Your task to perform on an android device: delete a single message in the gmail app Image 0: 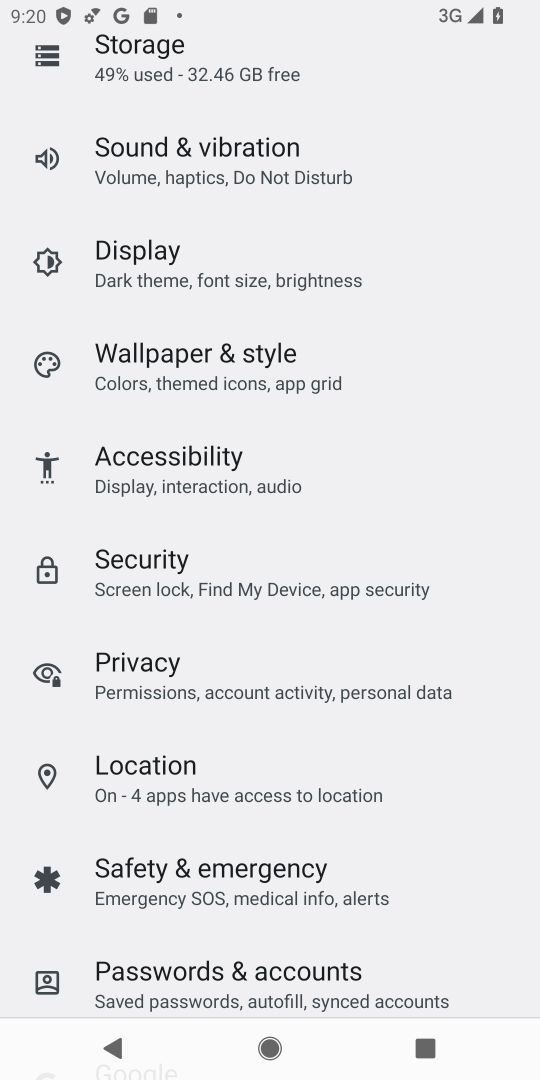
Step 0: press home button
Your task to perform on an android device: delete a single message in the gmail app Image 1: 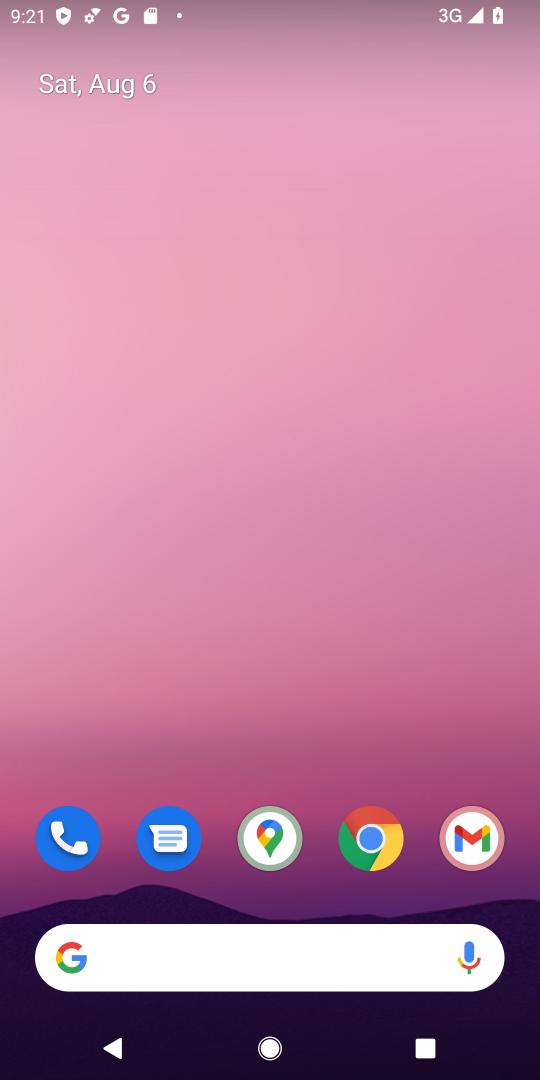
Step 1: drag from (426, 767) to (288, 98)
Your task to perform on an android device: delete a single message in the gmail app Image 2: 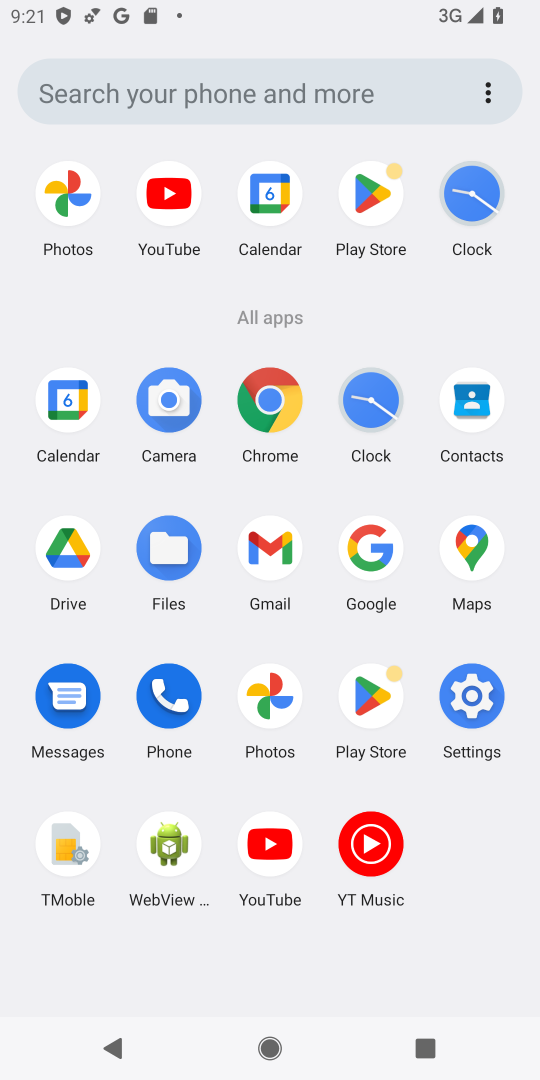
Step 2: click (288, 98)
Your task to perform on an android device: delete a single message in the gmail app Image 3: 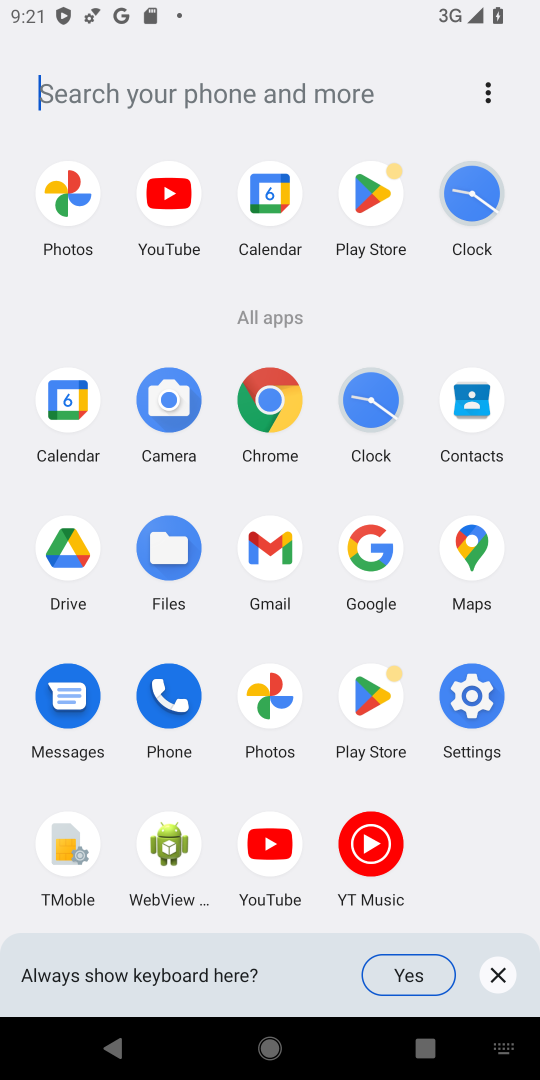
Step 3: click (267, 553)
Your task to perform on an android device: delete a single message in the gmail app Image 4: 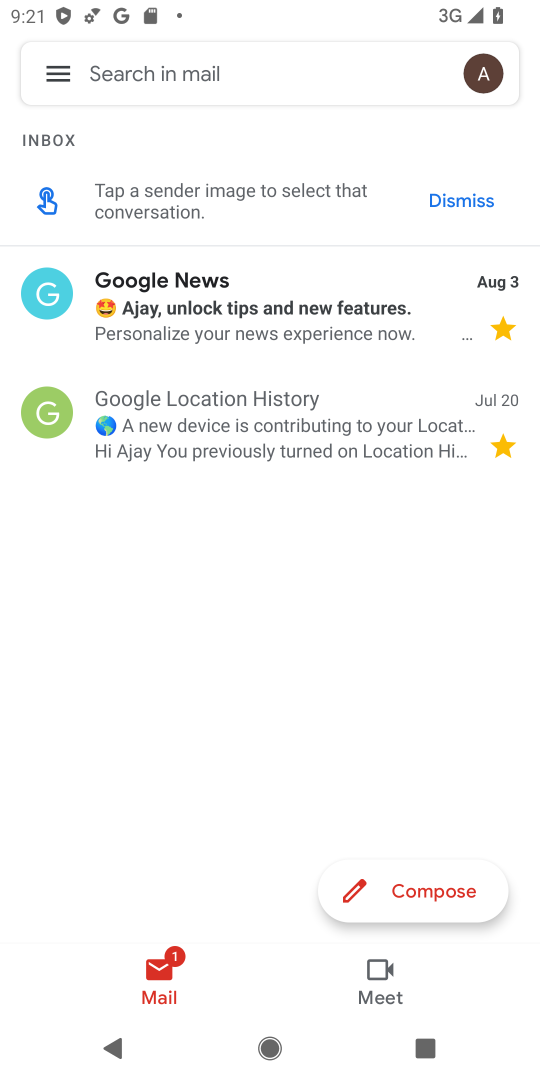
Step 4: click (28, 428)
Your task to perform on an android device: delete a single message in the gmail app Image 5: 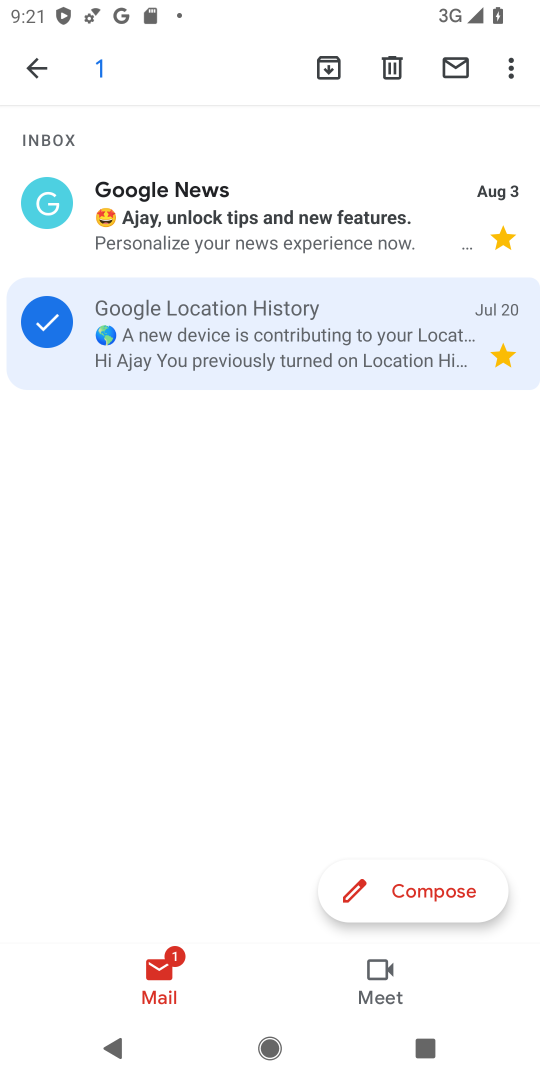
Step 5: click (382, 72)
Your task to perform on an android device: delete a single message in the gmail app Image 6: 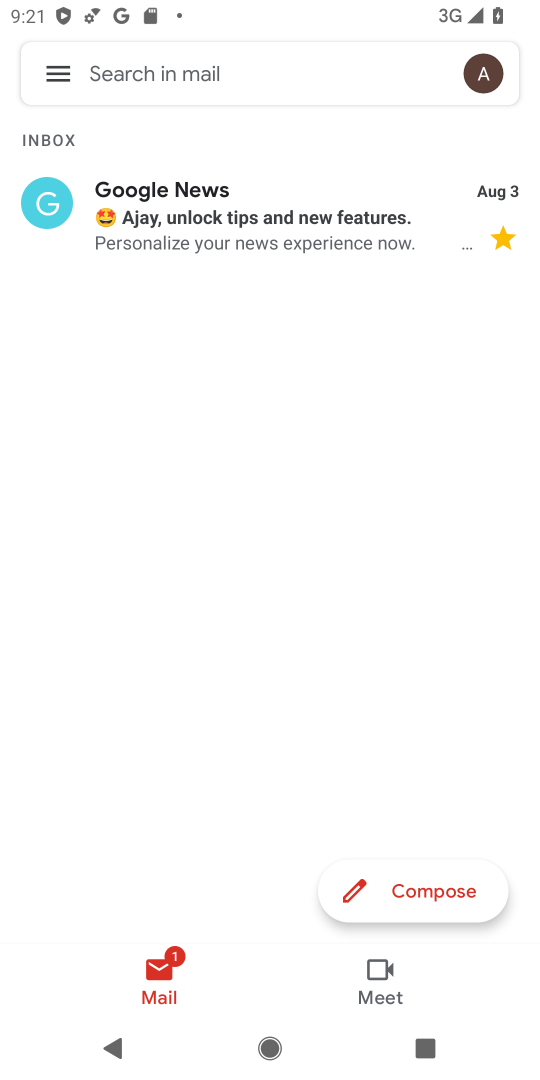
Step 6: task complete